Your task to perform on an android device: Open Google Chrome Image 0: 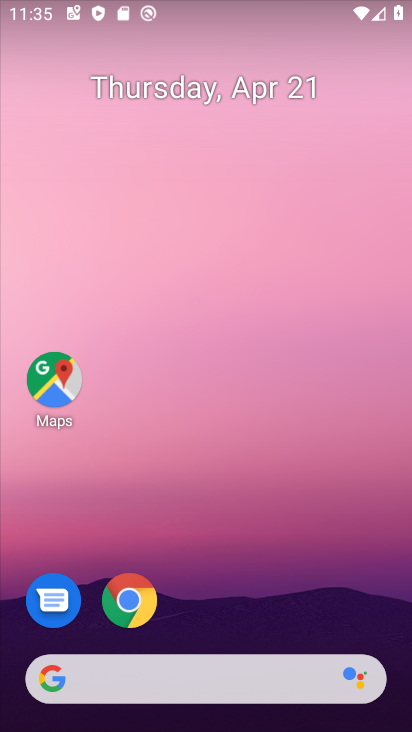
Step 0: drag from (202, 600) to (258, 74)
Your task to perform on an android device: Open Google Chrome Image 1: 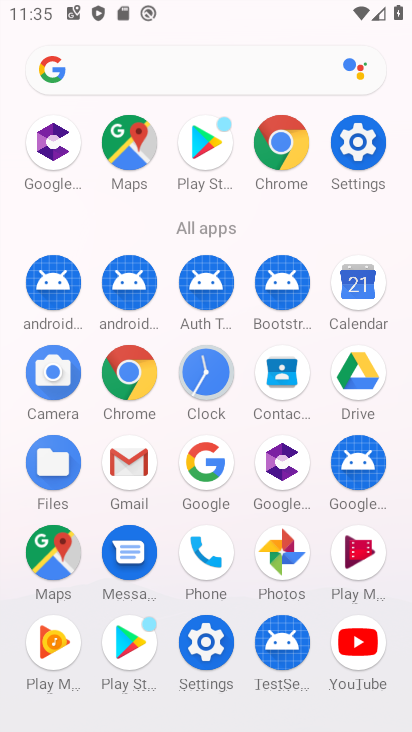
Step 1: click (289, 168)
Your task to perform on an android device: Open Google Chrome Image 2: 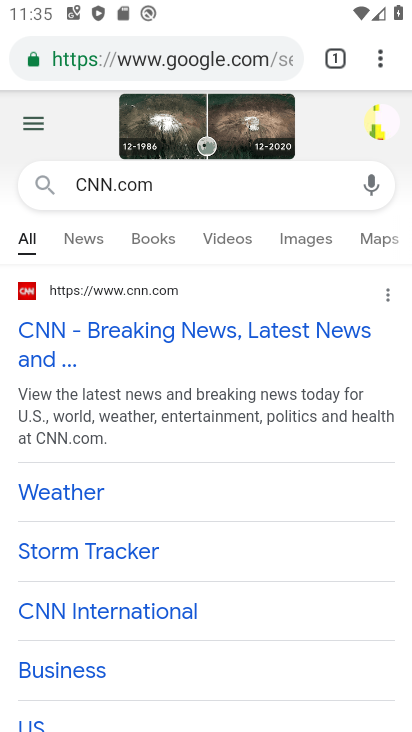
Step 2: task complete